Your task to perform on an android device: turn off wifi Image 0: 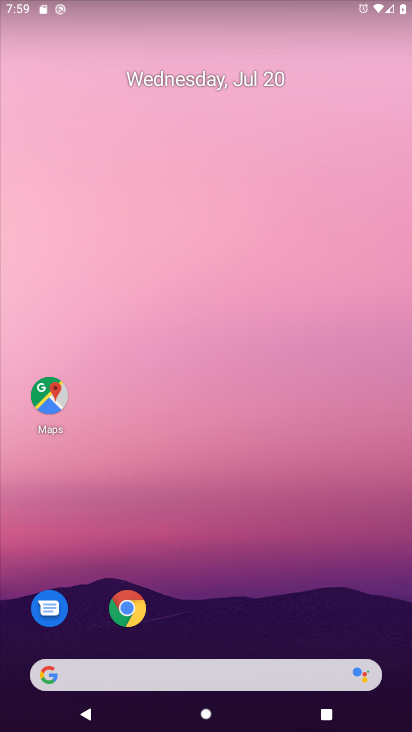
Step 0: click (214, 173)
Your task to perform on an android device: turn off wifi Image 1: 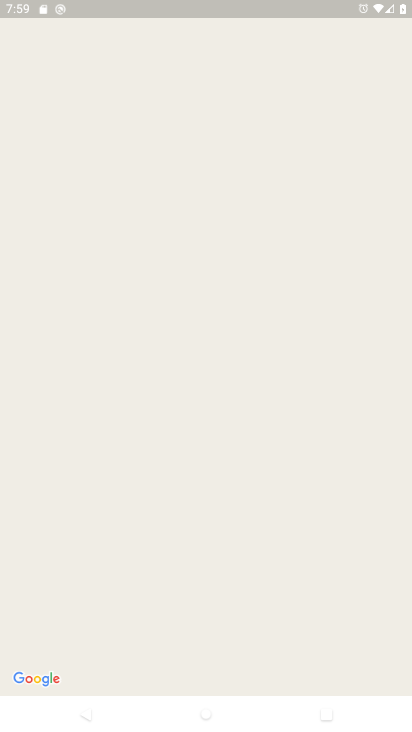
Step 1: press home button
Your task to perform on an android device: turn off wifi Image 2: 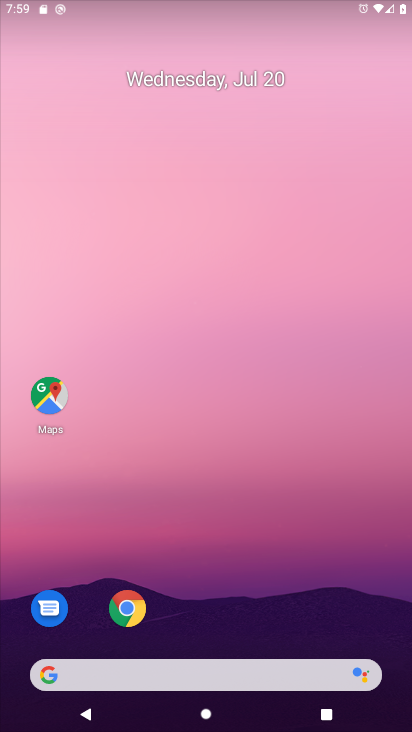
Step 2: drag from (235, 622) to (251, 112)
Your task to perform on an android device: turn off wifi Image 3: 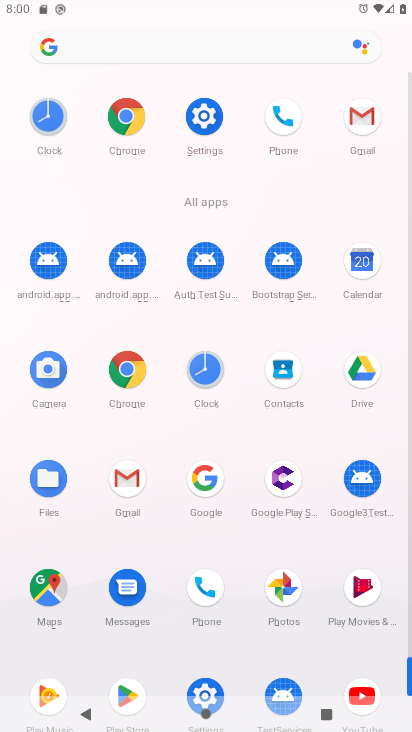
Step 3: click (119, 116)
Your task to perform on an android device: turn off wifi Image 4: 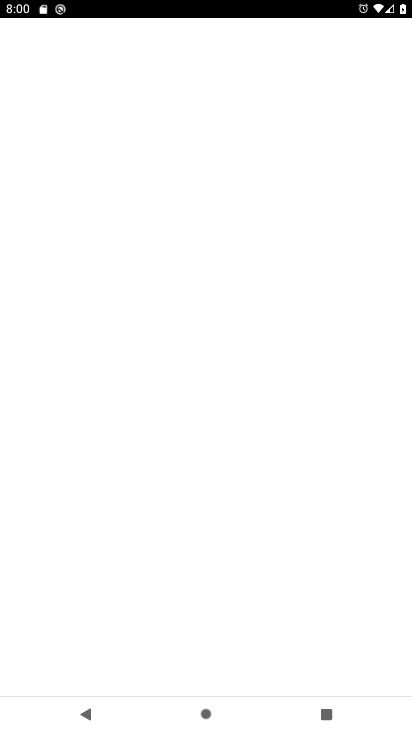
Step 4: click (199, 122)
Your task to perform on an android device: turn off wifi Image 5: 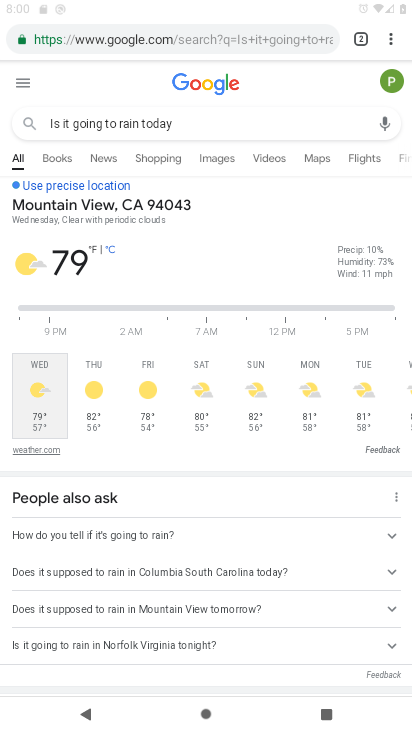
Step 5: press home button
Your task to perform on an android device: turn off wifi Image 6: 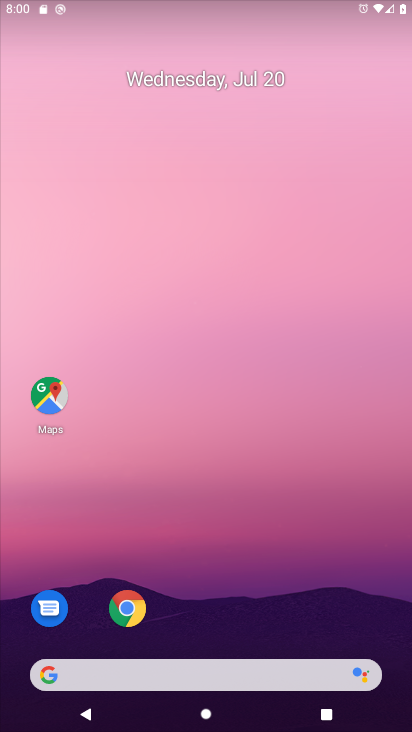
Step 6: drag from (213, 495) to (221, 173)
Your task to perform on an android device: turn off wifi Image 7: 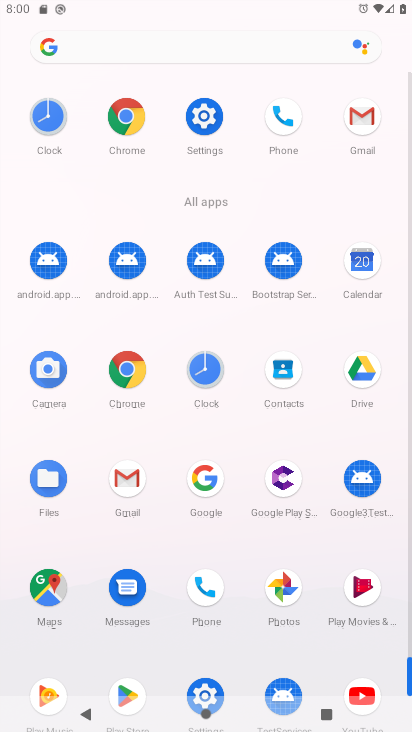
Step 7: click (210, 137)
Your task to perform on an android device: turn off wifi Image 8: 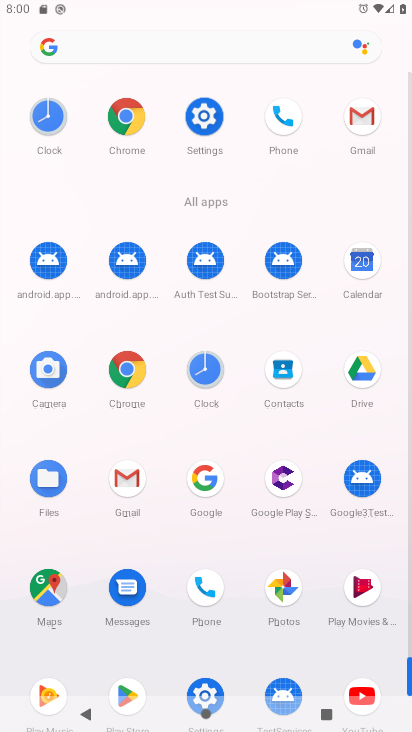
Step 8: click (208, 114)
Your task to perform on an android device: turn off wifi Image 9: 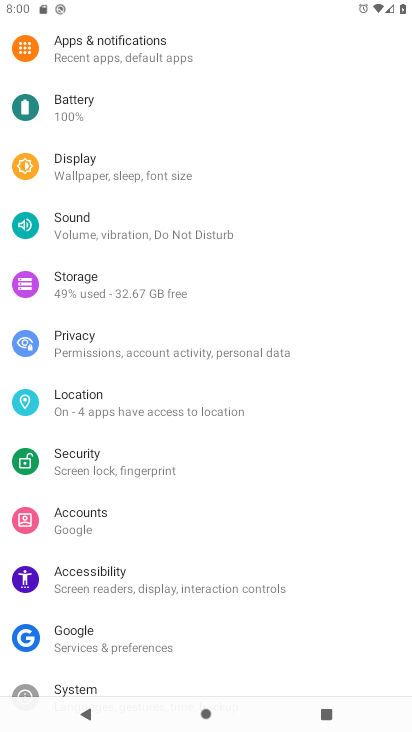
Step 9: drag from (153, 67) to (145, 550)
Your task to perform on an android device: turn off wifi Image 10: 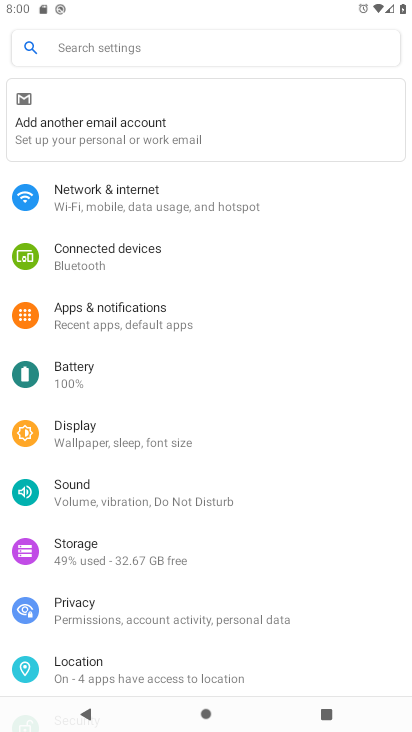
Step 10: click (90, 174)
Your task to perform on an android device: turn off wifi Image 11: 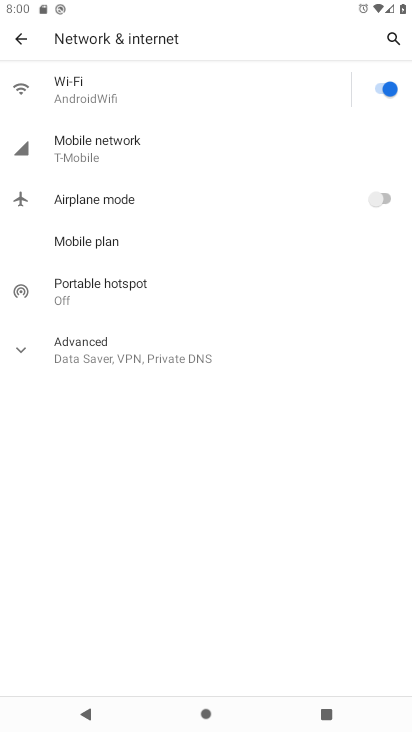
Step 11: click (395, 73)
Your task to perform on an android device: turn off wifi Image 12: 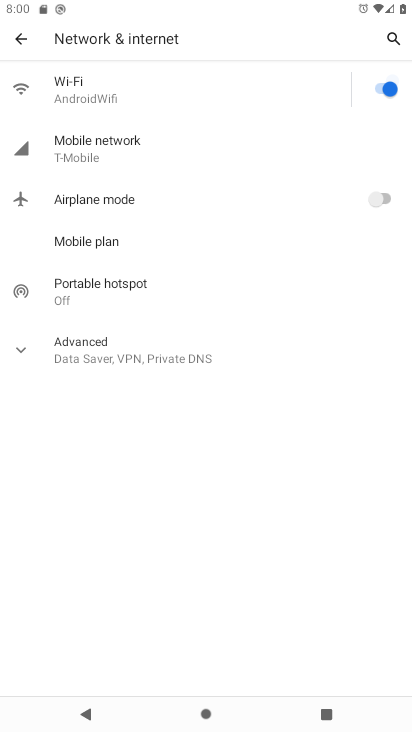
Step 12: click (393, 84)
Your task to perform on an android device: turn off wifi Image 13: 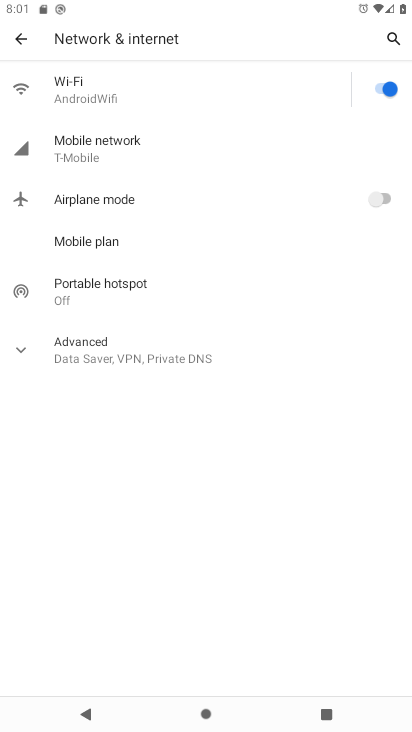
Step 13: task complete